Your task to perform on an android device: empty trash in google photos Image 0: 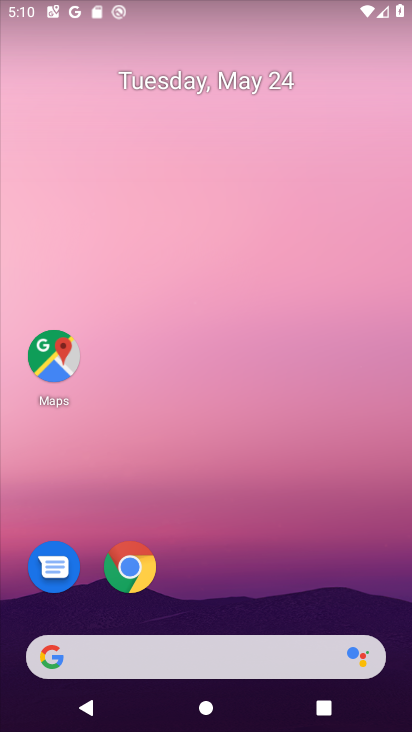
Step 0: drag from (279, 579) to (275, 208)
Your task to perform on an android device: empty trash in google photos Image 1: 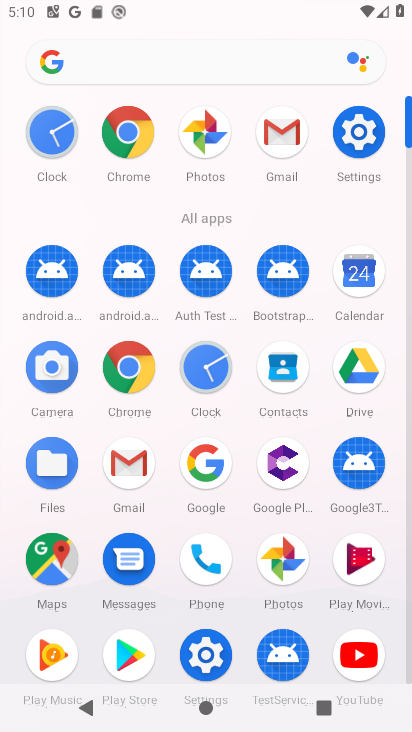
Step 1: click (207, 132)
Your task to perform on an android device: empty trash in google photos Image 2: 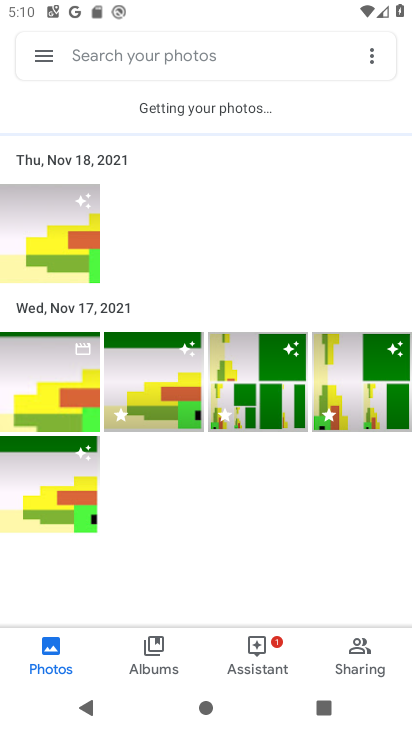
Step 2: click (45, 56)
Your task to perform on an android device: empty trash in google photos Image 3: 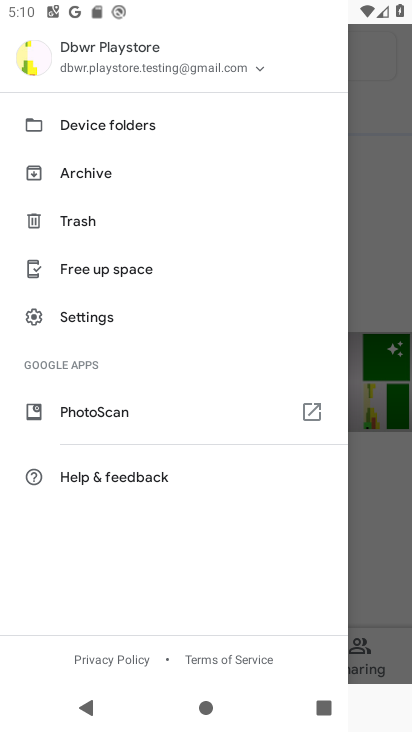
Step 3: click (77, 219)
Your task to perform on an android device: empty trash in google photos Image 4: 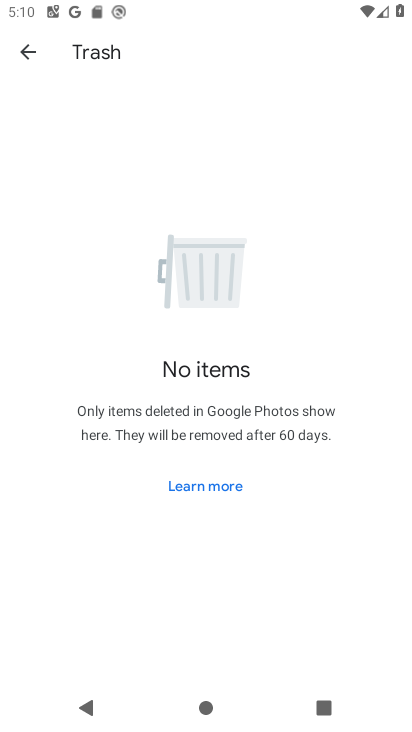
Step 4: task complete